Your task to perform on an android device: Open the Play Movies app and select the watchlist tab. Image 0: 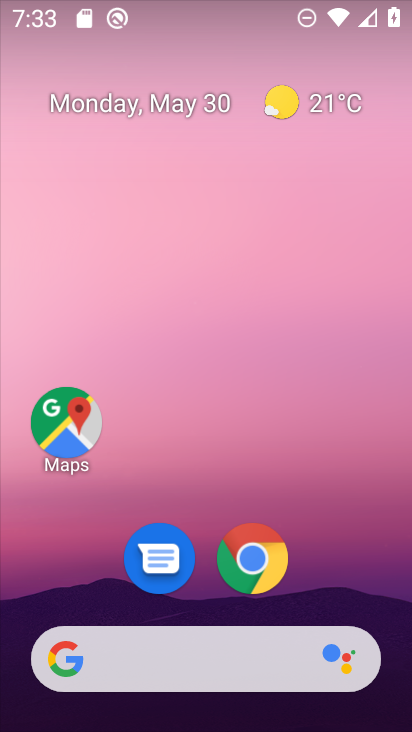
Step 0: drag from (340, 536) to (222, 14)
Your task to perform on an android device: Open the Play Movies app and select the watchlist tab. Image 1: 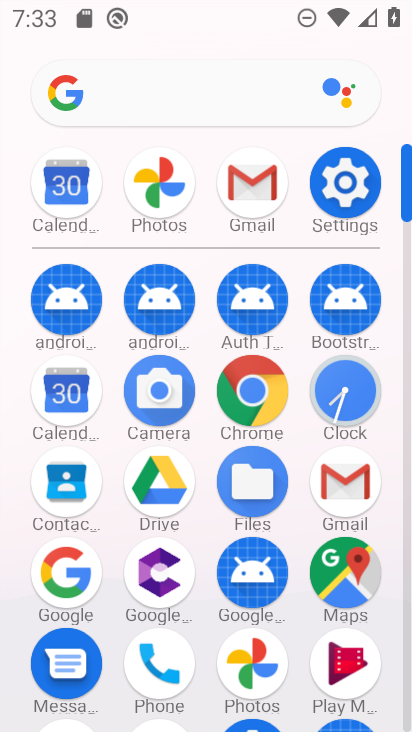
Step 1: click (338, 662)
Your task to perform on an android device: Open the Play Movies app and select the watchlist tab. Image 2: 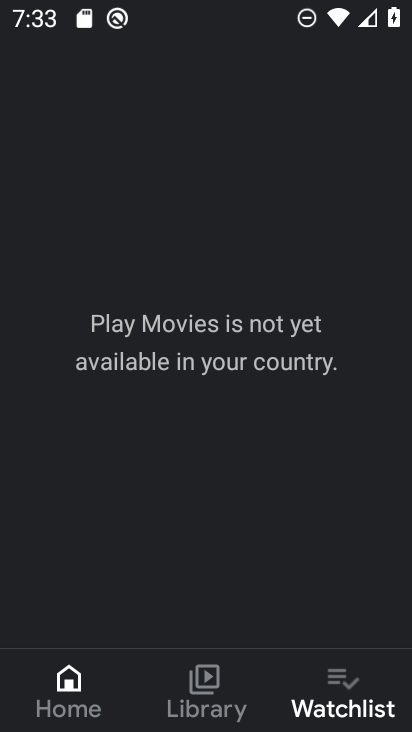
Step 2: click (332, 682)
Your task to perform on an android device: Open the Play Movies app and select the watchlist tab. Image 3: 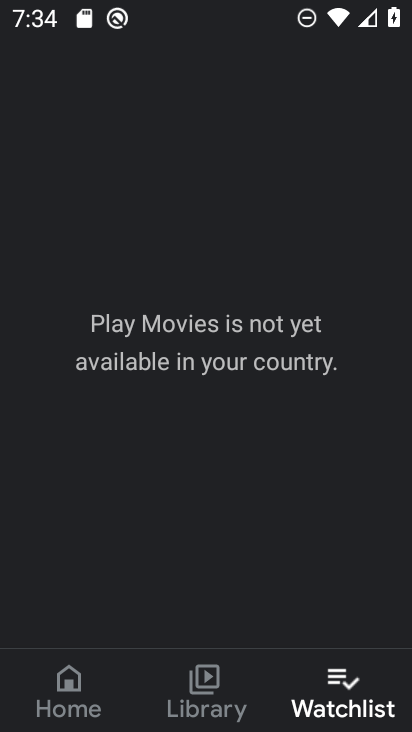
Step 3: task complete